Your task to perform on an android device: turn on showing notifications on the lock screen Image 0: 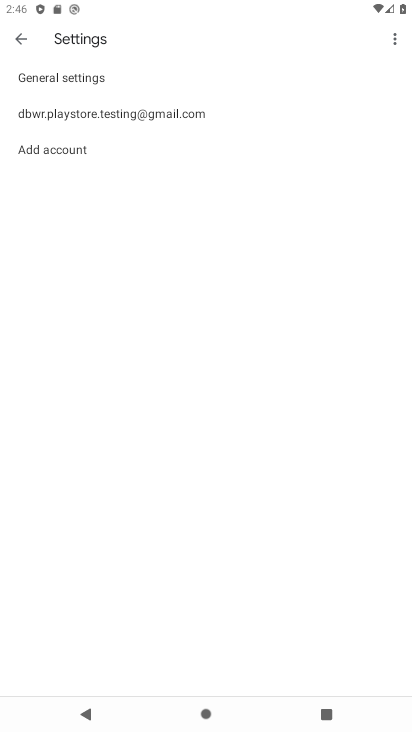
Step 0: press home button
Your task to perform on an android device: turn on showing notifications on the lock screen Image 1: 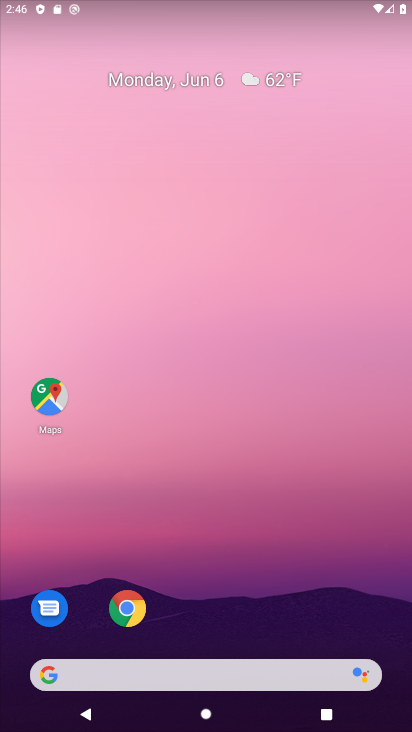
Step 1: drag from (214, 623) to (297, 3)
Your task to perform on an android device: turn on showing notifications on the lock screen Image 2: 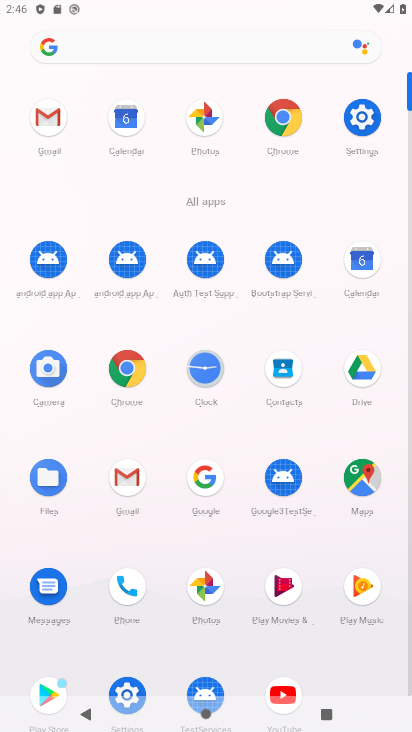
Step 2: click (350, 116)
Your task to perform on an android device: turn on showing notifications on the lock screen Image 3: 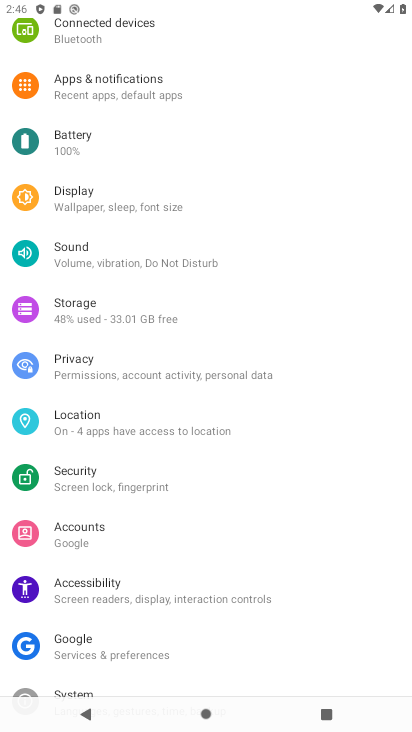
Step 3: click (160, 86)
Your task to perform on an android device: turn on showing notifications on the lock screen Image 4: 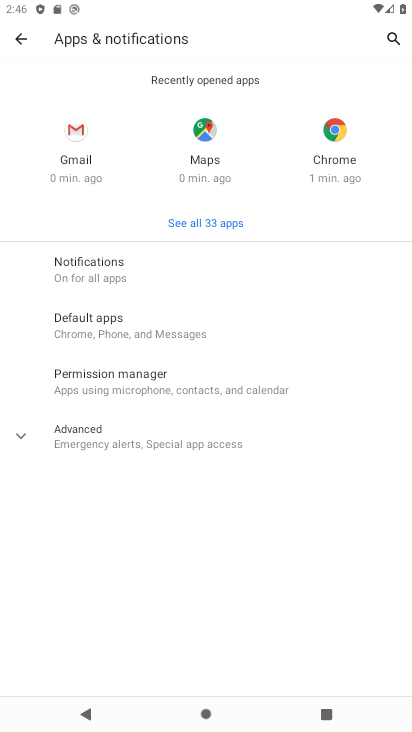
Step 4: click (130, 271)
Your task to perform on an android device: turn on showing notifications on the lock screen Image 5: 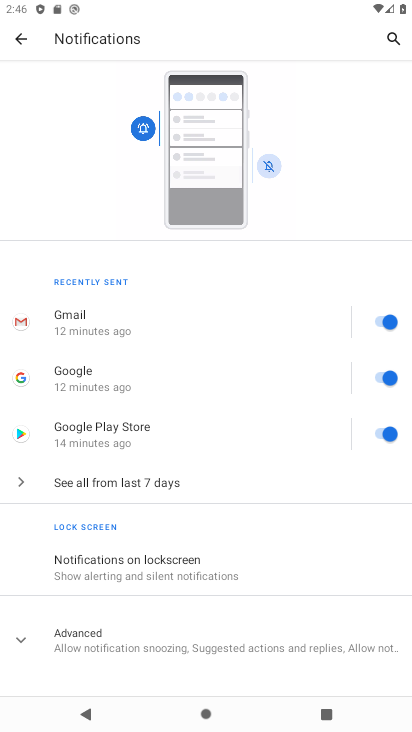
Step 5: click (153, 579)
Your task to perform on an android device: turn on showing notifications on the lock screen Image 6: 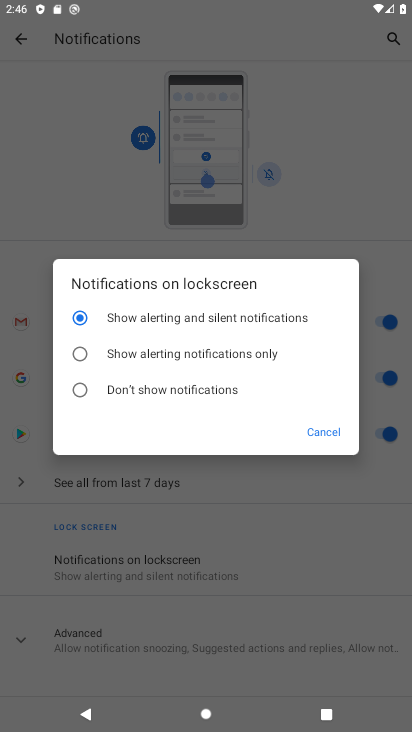
Step 6: click (165, 309)
Your task to perform on an android device: turn on showing notifications on the lock screen Image 7: 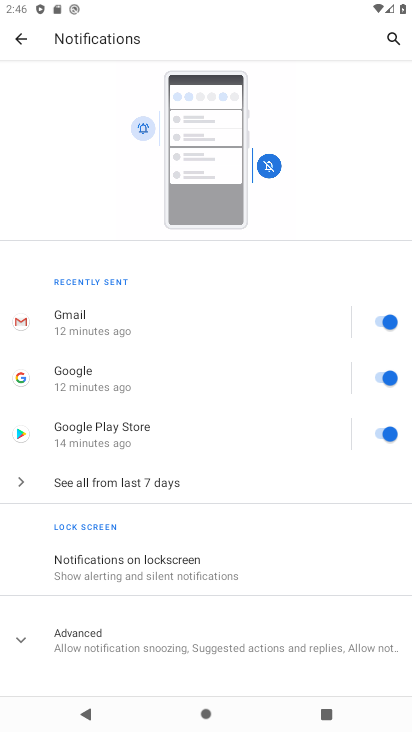
Step 7: task complete